Your task to perform on an android device: change the clock display to analog Image 0: 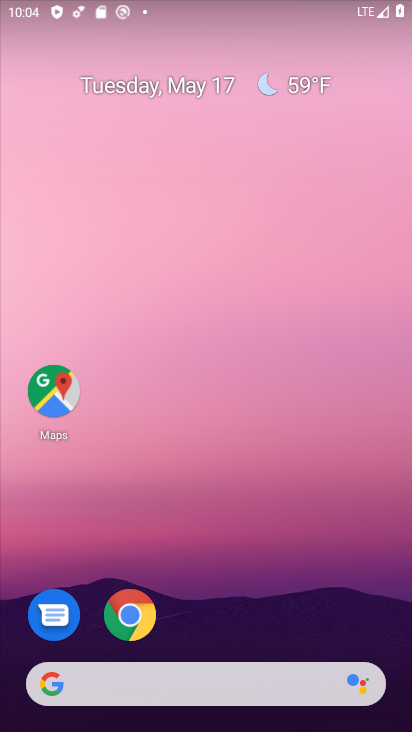
Step 0: press home button
Your task to perform on an android device: change the clock display to analog Image 1: 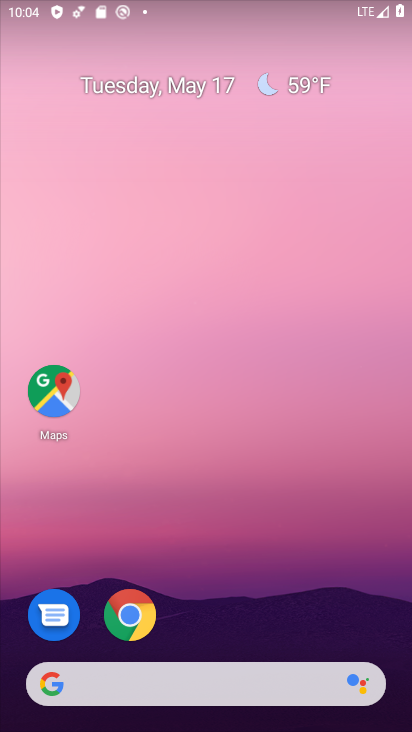
Step 1: drag from (237, 484) to (311, 156)
Your task to perform on an android device: change the clock display to analog Image 2: 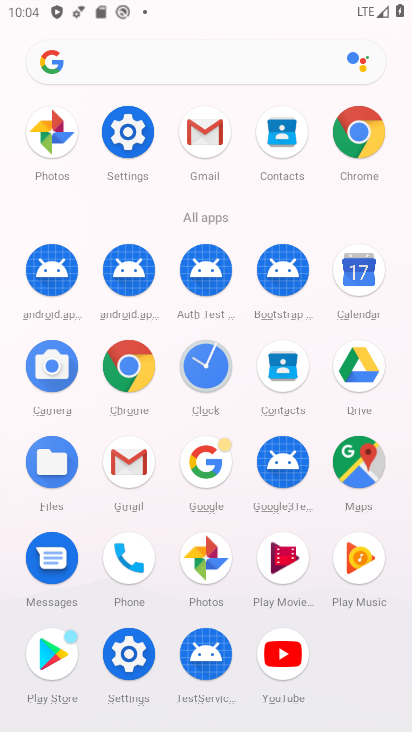
Step 2: click (203, 356)
Your task to perform on an android device: change the clock display to analog Image 3: 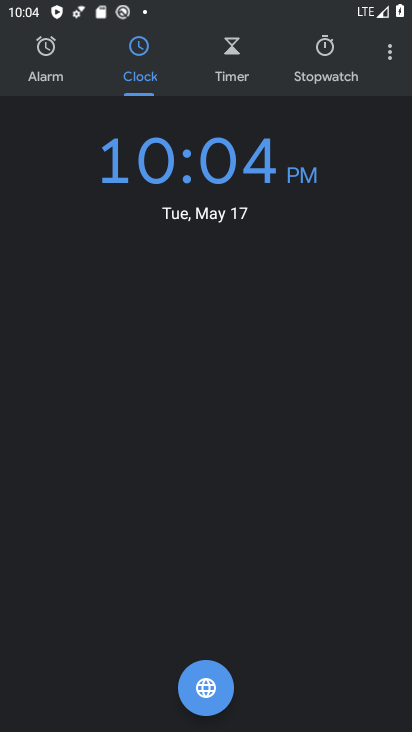
Step 3: click (387, 59)
Your task to perform on an android device: change the clock display to analog Image 4: 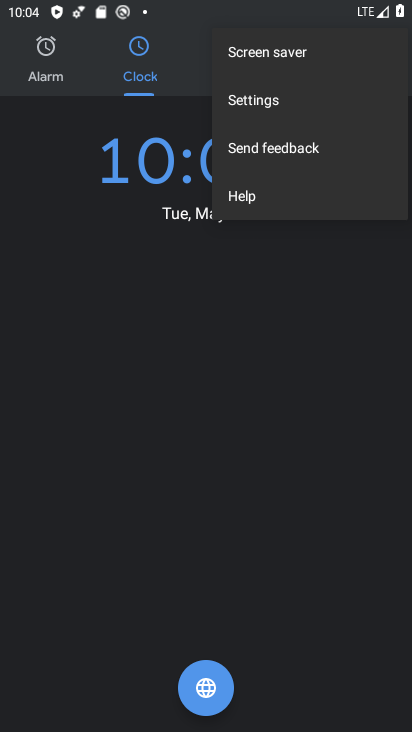
Step 4: click (282, 103)
Your task to perform on an android device: change the clock display to analog Image 5: 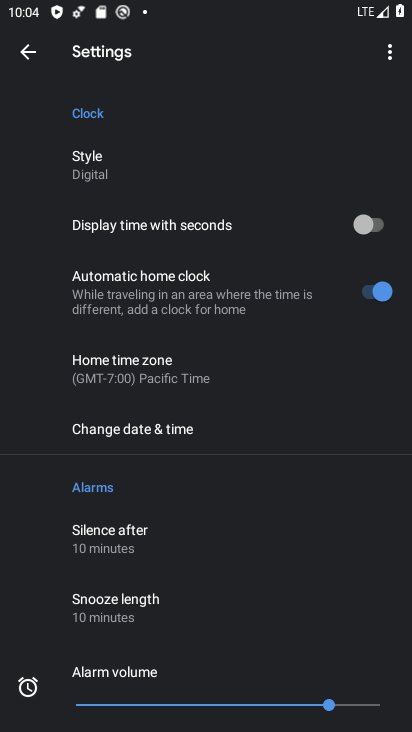
Step 5: click (89, 165)
Your task to perform on an android device: change the clock display to analog Image 6: 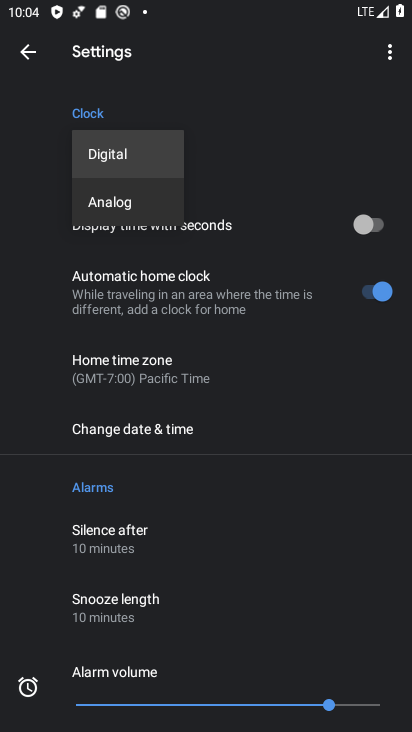
Step 6: click (130, 208)
Your task to perform on an android device: change the clock display to analog Image 7: 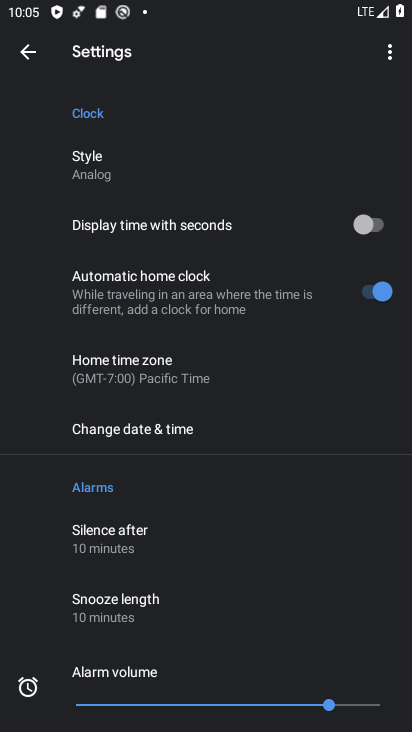
Step 7: task complete